Your task to perform on an android device: delete browsing data in the chrome app Image 0: 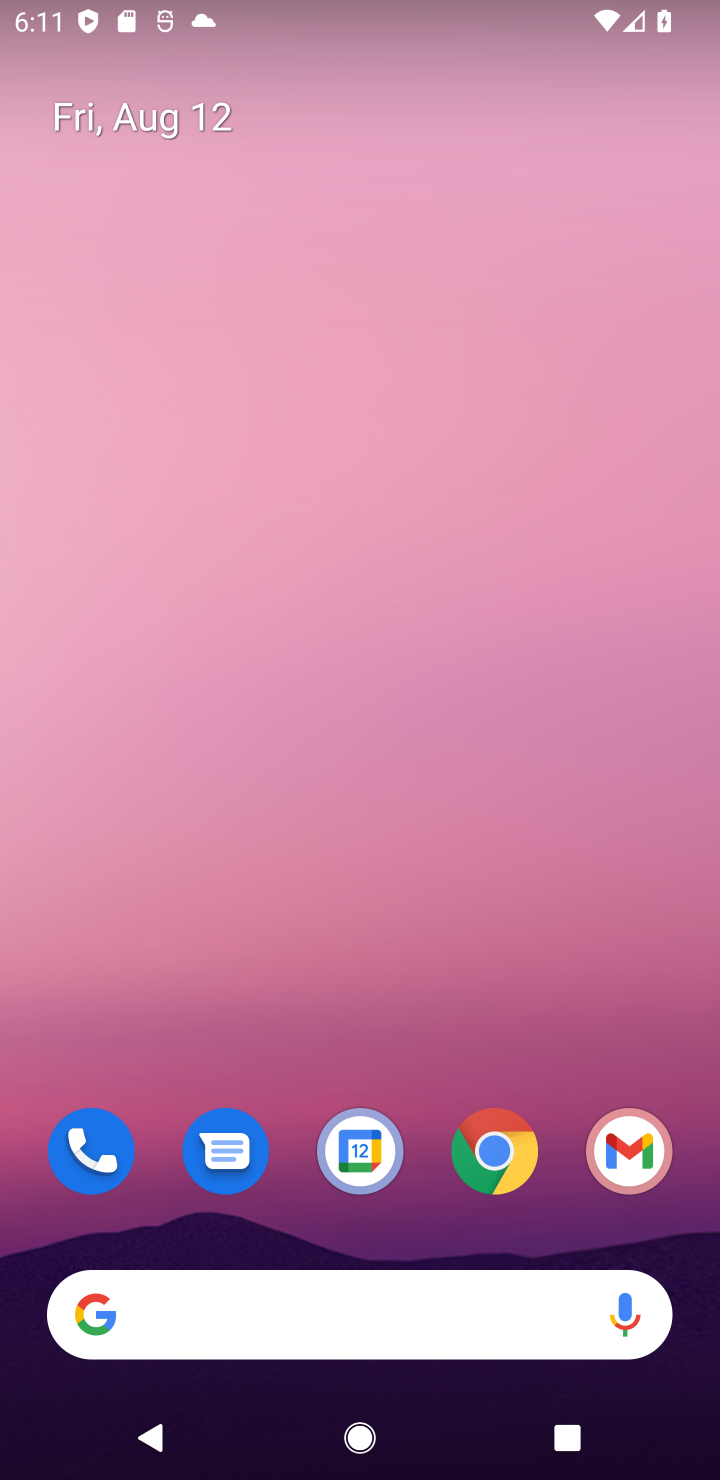
Step 0: drag from (449, 1025) to (477, 6)
Your task to perform on an android device: delete browsing data in the chrome app Image 1: 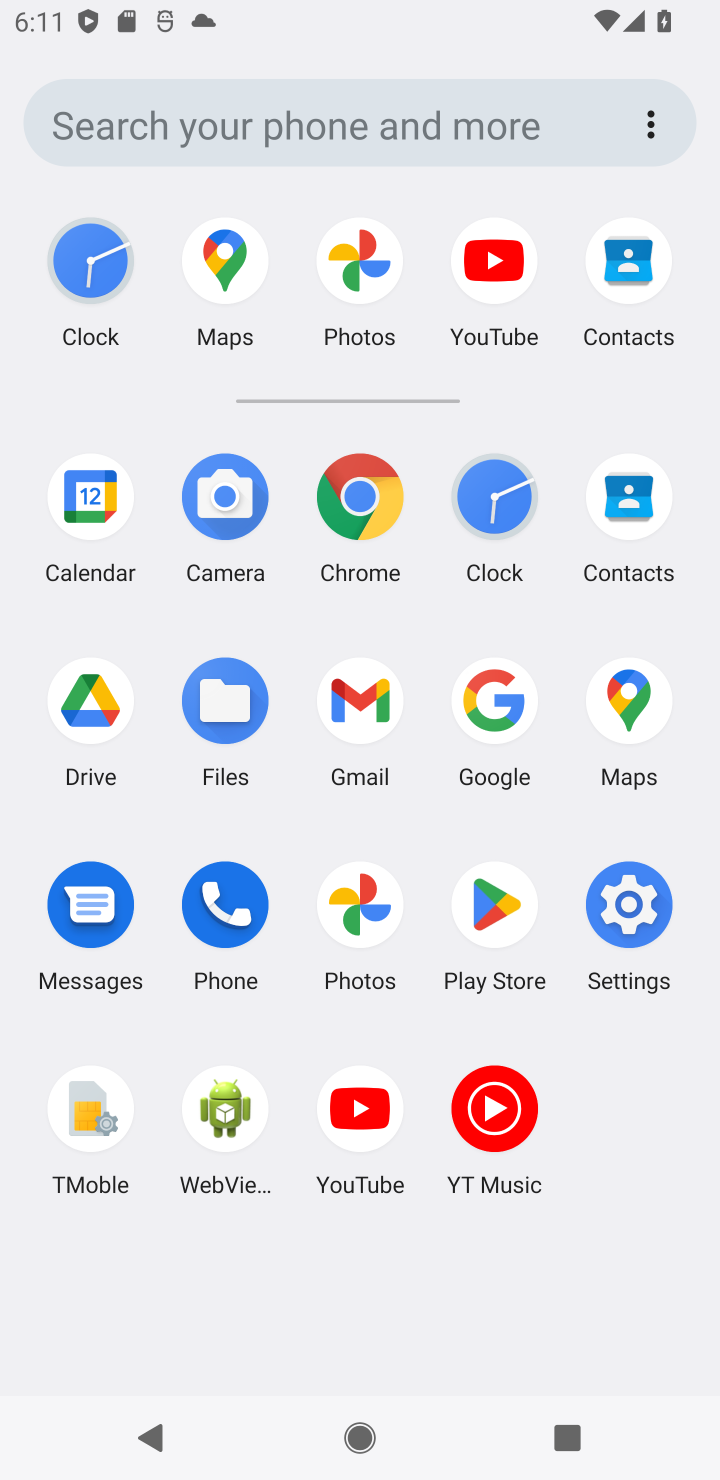
Step 1: click (362, 488)
Your task to perform on an android device: delete browsing data in the chrome app Image 2: 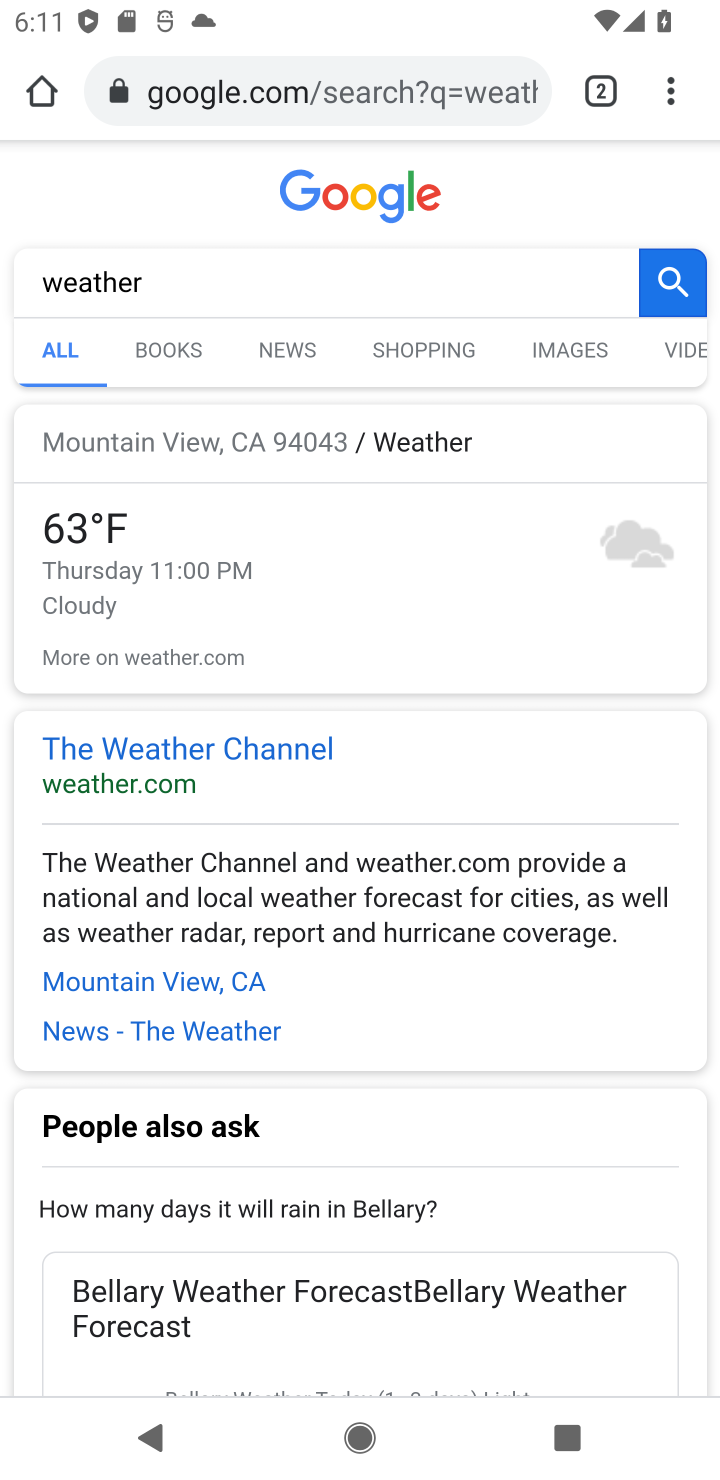
Step 2: drag from (661, 80) to (447, 503)
Your task to perform on an android device: delete browsing data in the chrome app Image 3: 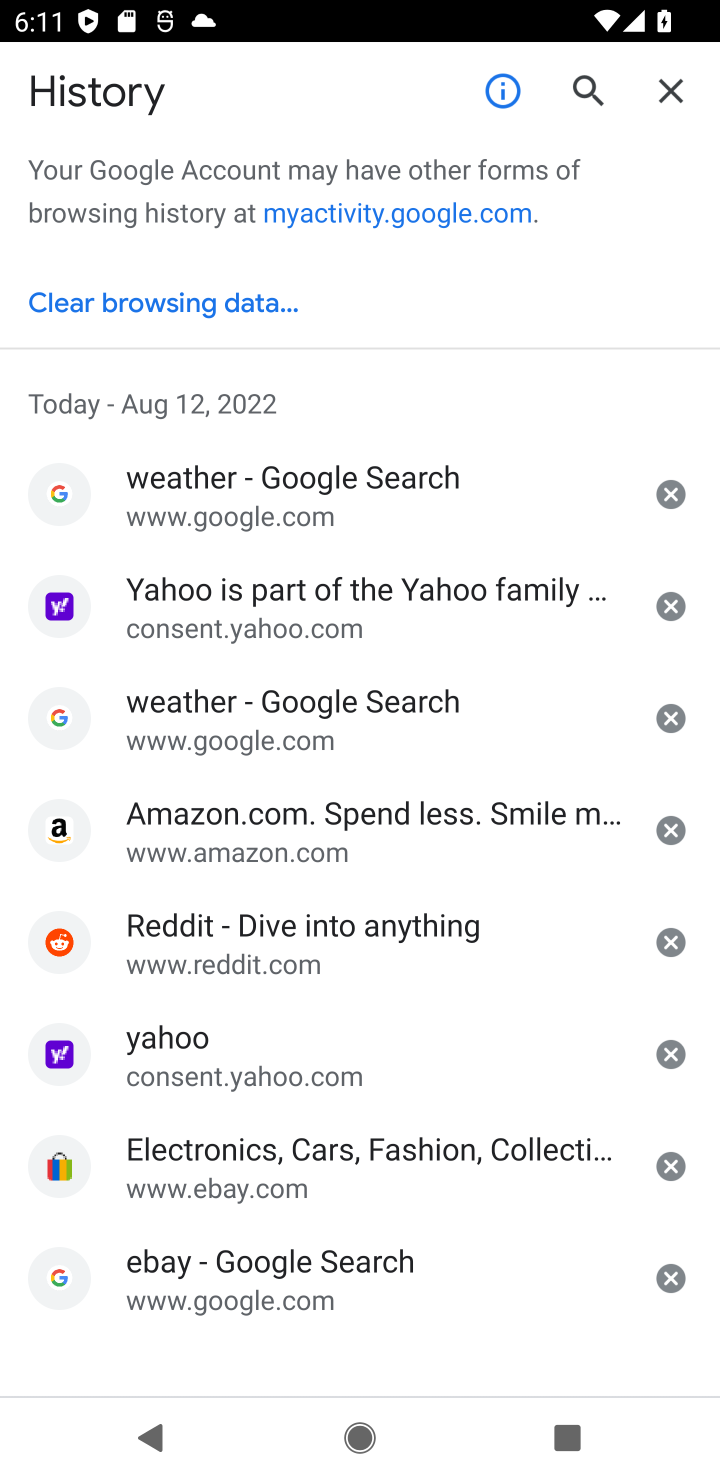
Step 3: click (220, 307)
Your task to perform on an android device: delete browsing data in the chrome app Image 4: 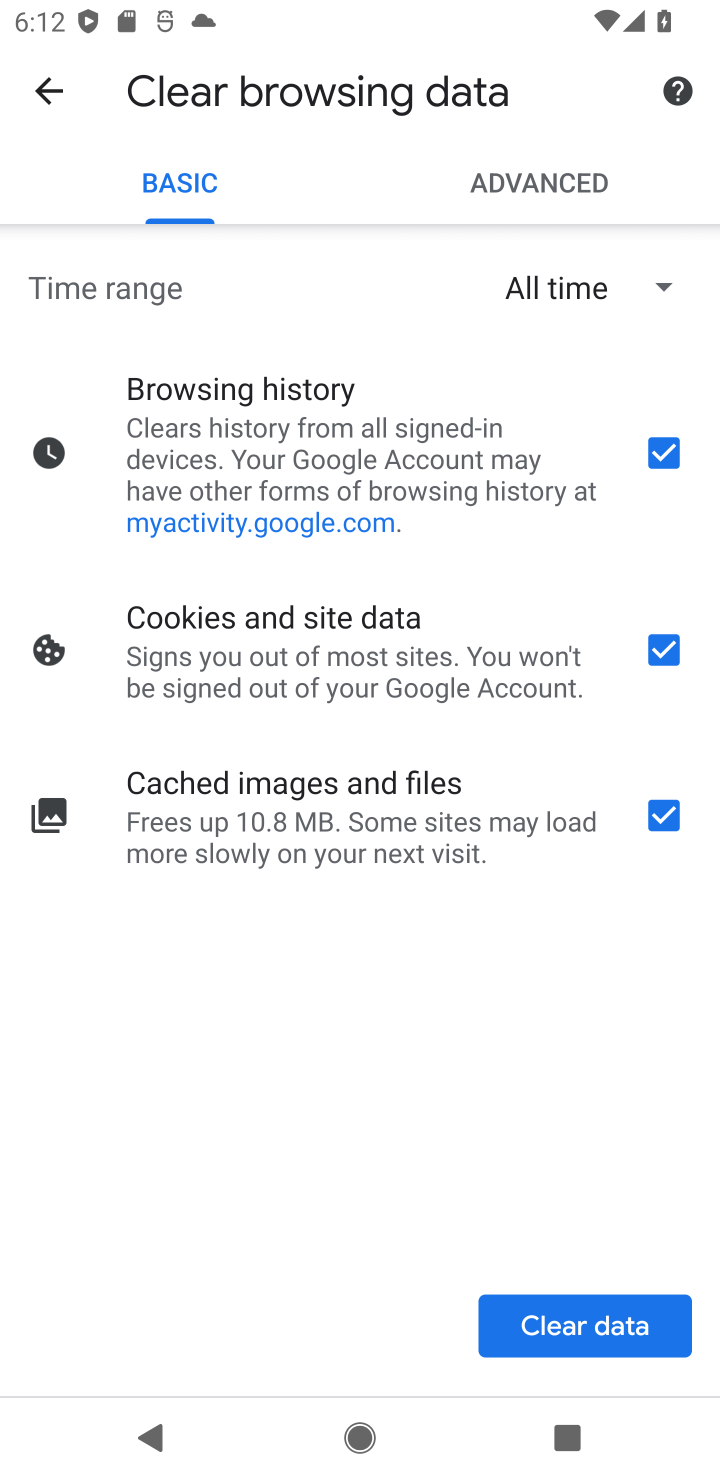
Step 4: click (618, 1321)
Your task to perform on an android device: delete browsing data in the chrome app Image 5: 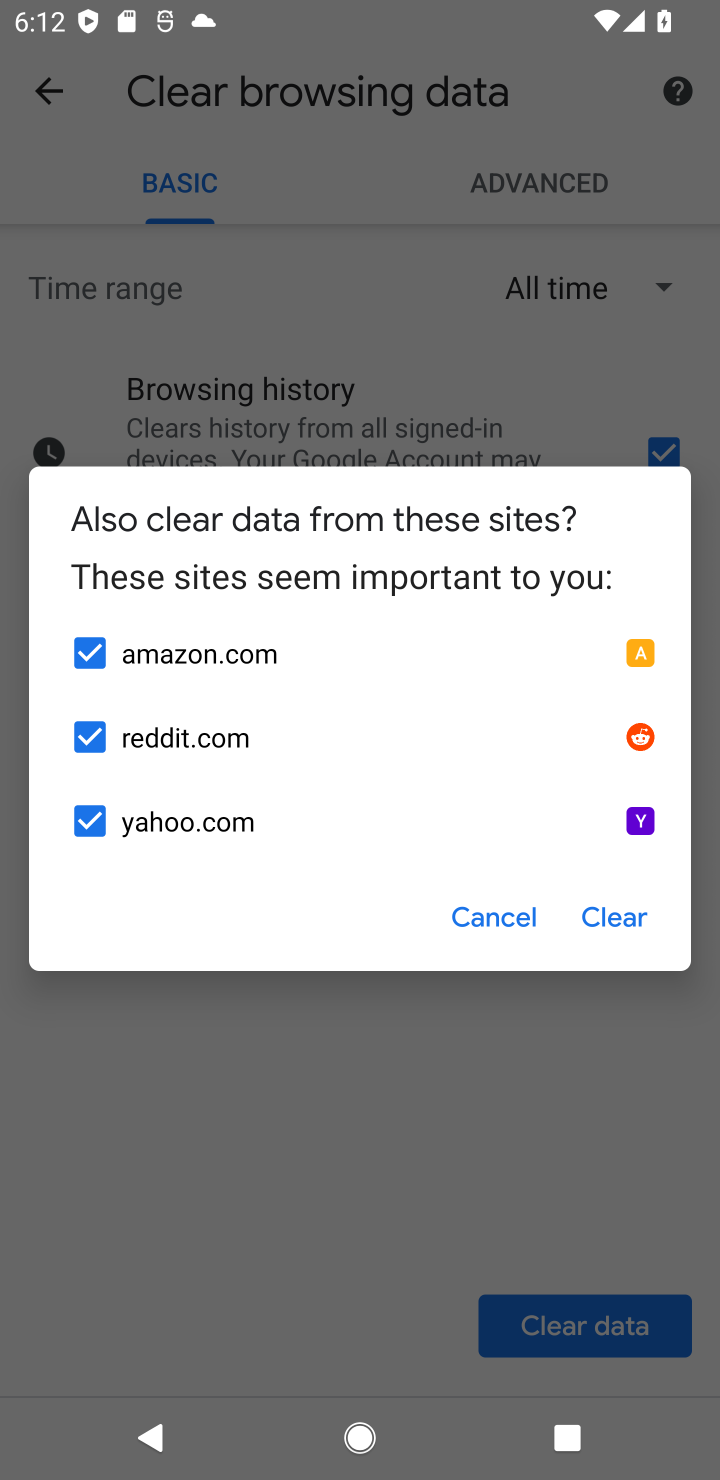
Step 5: click (636, 916)
Your task to perform on an android device: delete browsing data in the chrome app Image 6: 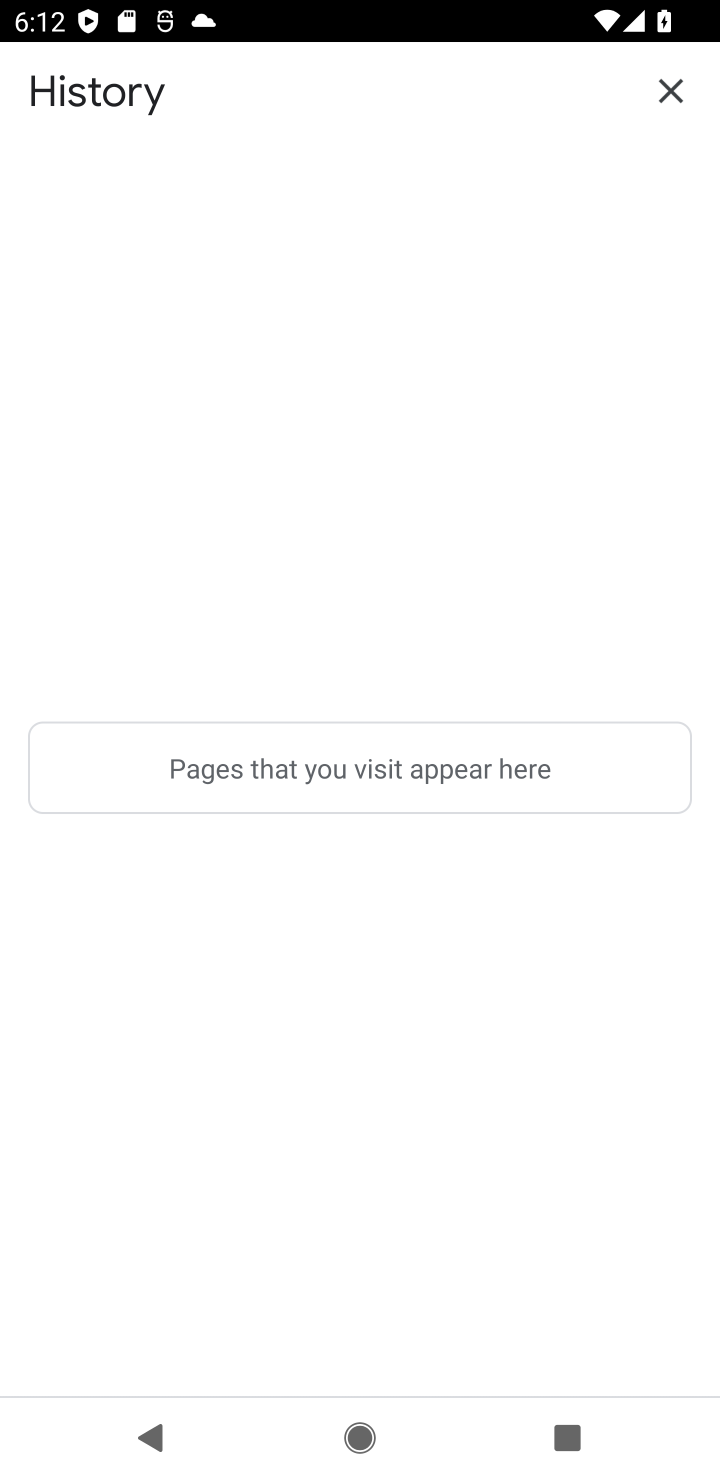
Step 6: task complete